Your task to perform on an android device: turn on notifications settings in the gmail app Image 0: 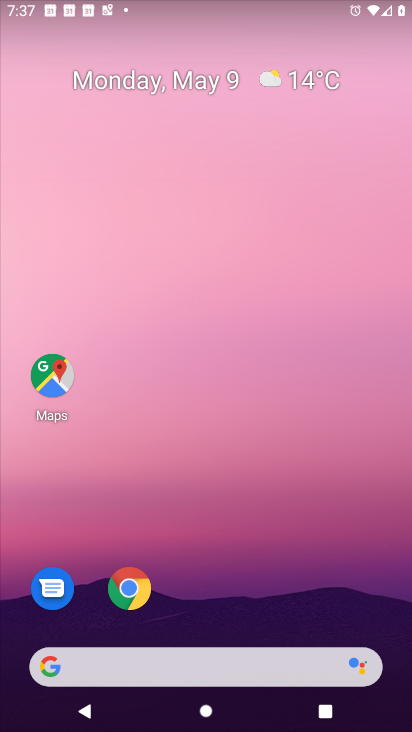
Step 0: drag from (319, 614) to (224, 3)
Your task to perform on an android device: turn on notifications settings in the gmail app Image 1: 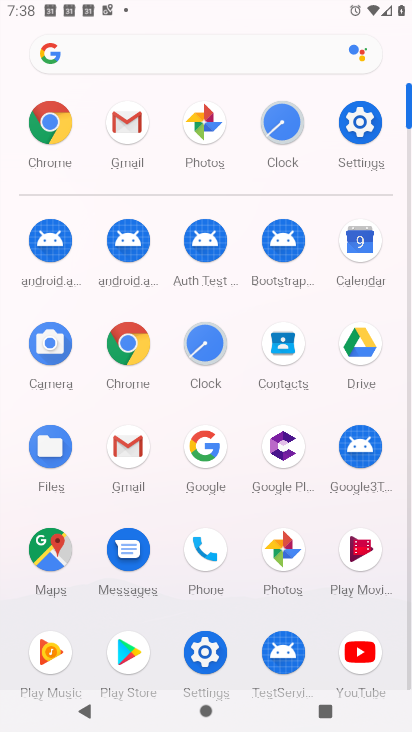
Step 1: click (142, 450)
Your task to perform on an android device: turn on notifications settings in the gmail app Image 2: 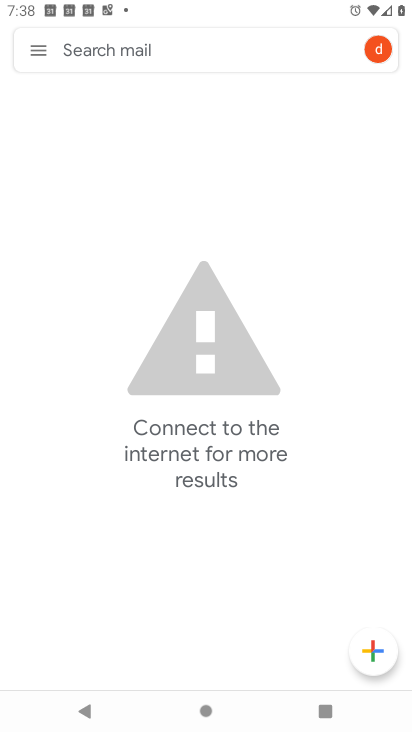
Step 2: click (32, 56)
Your task to perform on an android device: turn on notifications settings in the gmail app Image 3: 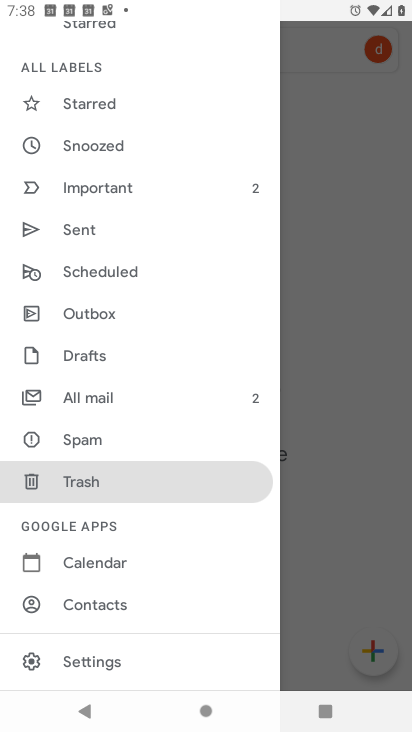
Step 3: click (120, 669)
Your task to perform on an android device: turn on notifications settings in the gmail app Image 4: 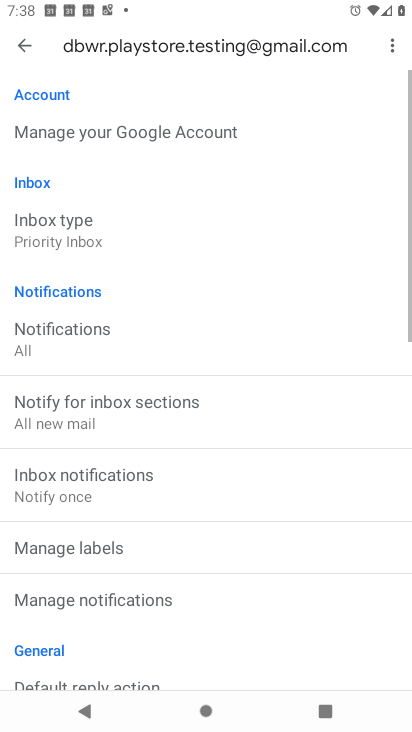
Step 4: click (107, 342)
Your task to perform on an android device: turn on notifications settings in the gmail app Image 5: 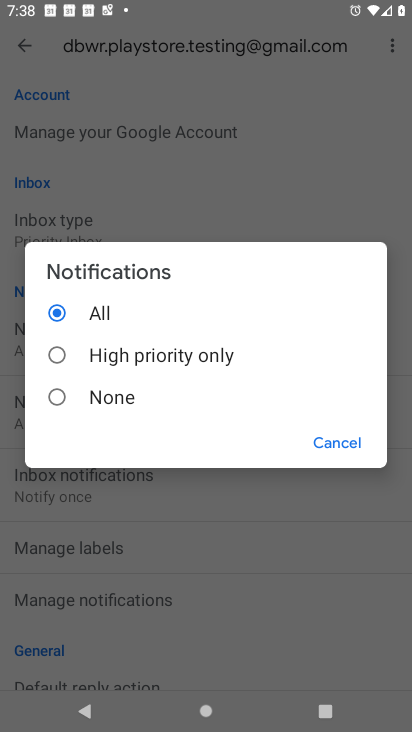
Step 5: task complete